Your task to perform on an android device: turn off improve location accuracy Image 0: 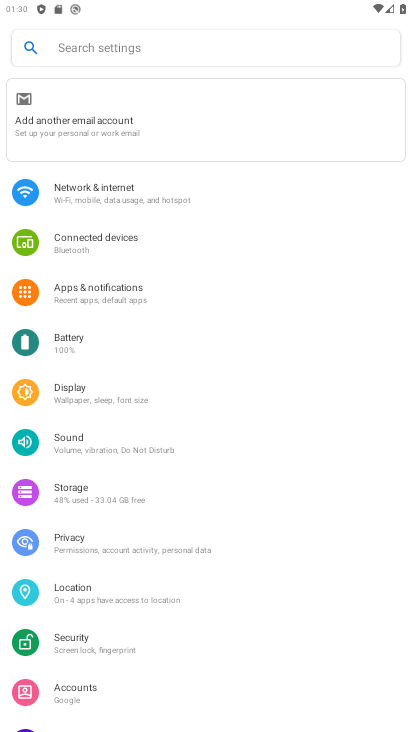
Step 0: click (118, 594)
Your task to perform on an android device: turn off improve location accuracy Image 1: 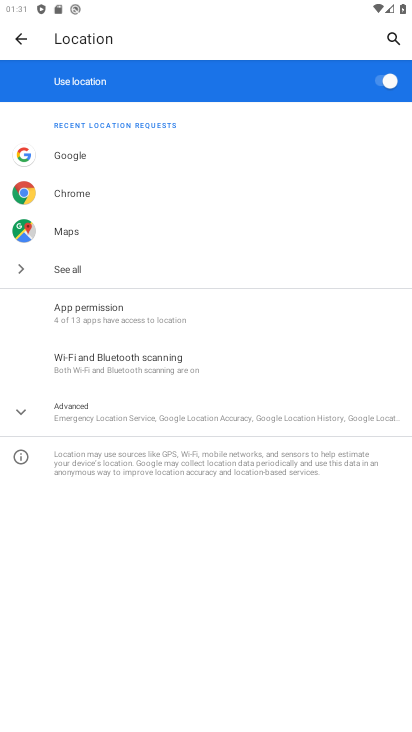
Step 1: click (162, 406)
Your task to perform on an android device: turn off improve location accuracy Image 2: 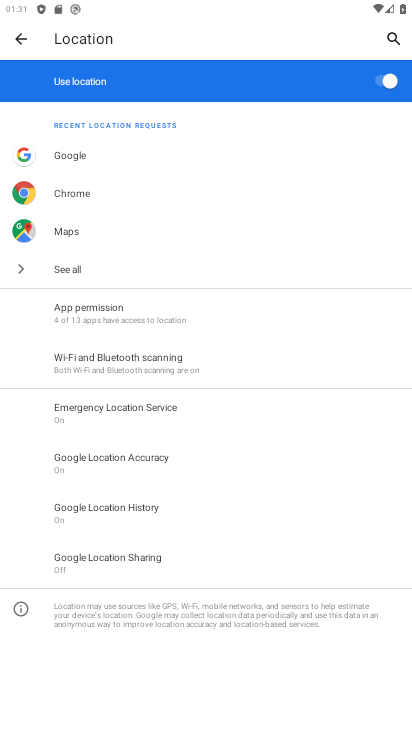
Step 2: click (169, 458)
Your task to perform on an android device: turn off improve location accuracy Image 3: 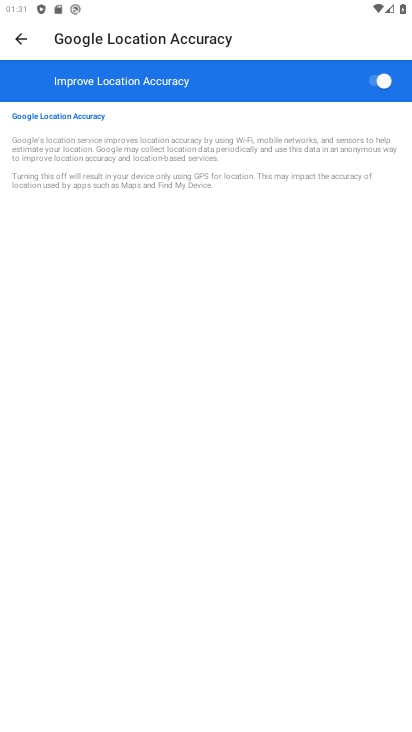
Step 3: click (379, 80)
Your task to perform on an android device: turn off improve location accuracy Image 4: 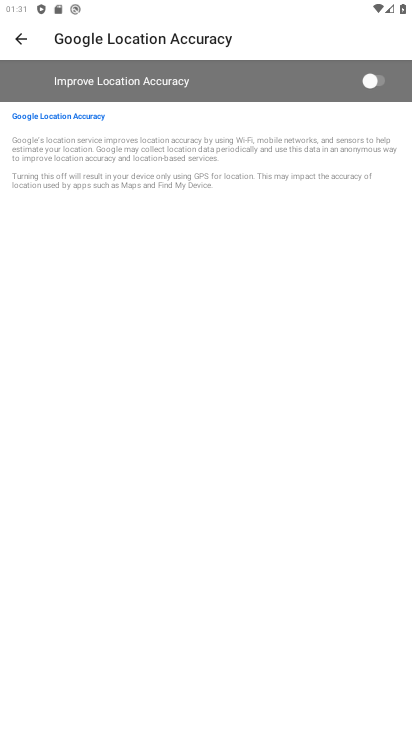
Step 4: task complete